Your task to perform on an android device: change notifications settings Image 0: 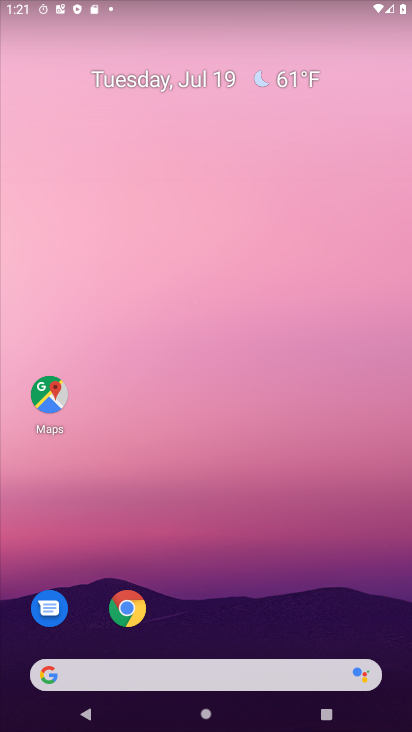
Step 0: drag from (321, 545) to (214, 2)
Your task to perform on an android device: change notifications settings Image 1: 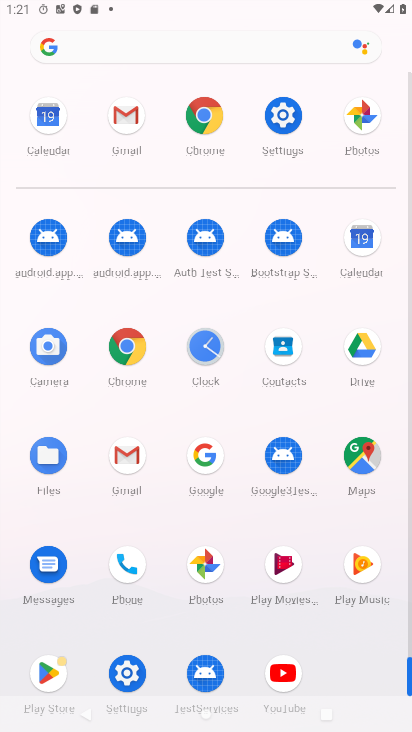
Step 1: click (280, 123)
Your task to perform on an android device: change notifications settings Image 2: 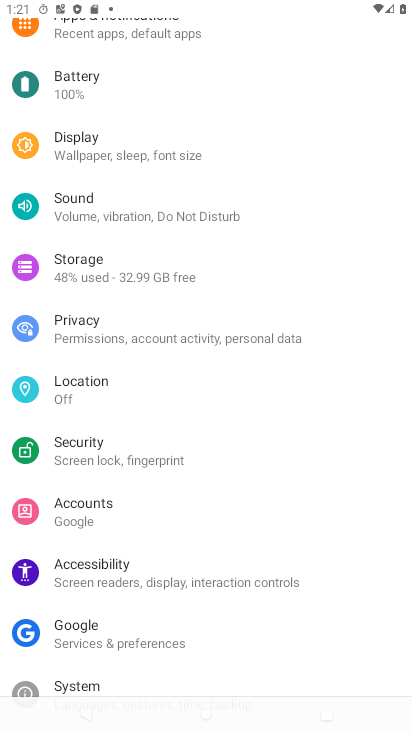
Step 2: drag from (219, 68) to (279, 504)
Your task to perform on an android device: change notifications settings Image 3: 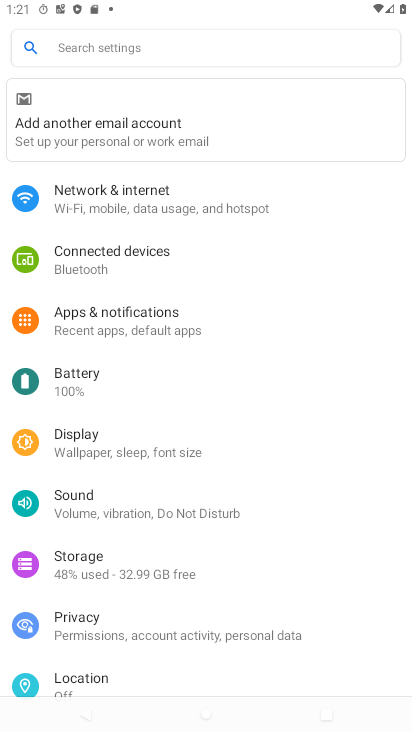
Step 3: click (175, 328)
Your task to perform on an android device: change notifications settings Image 4: 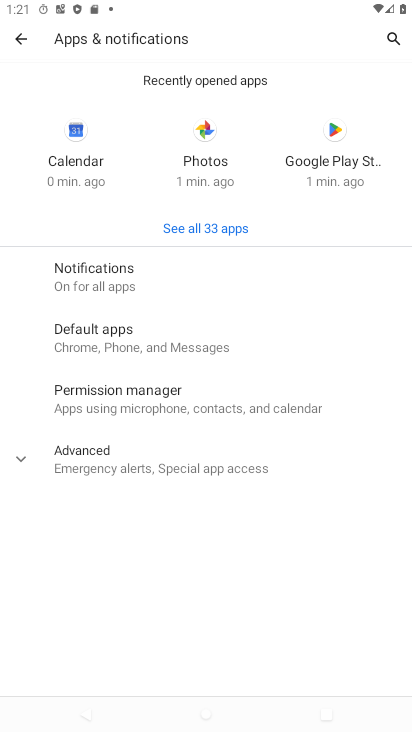
Step 4: click (81, 271)
Your task to perform on an android device: change notifications settings Image 5: 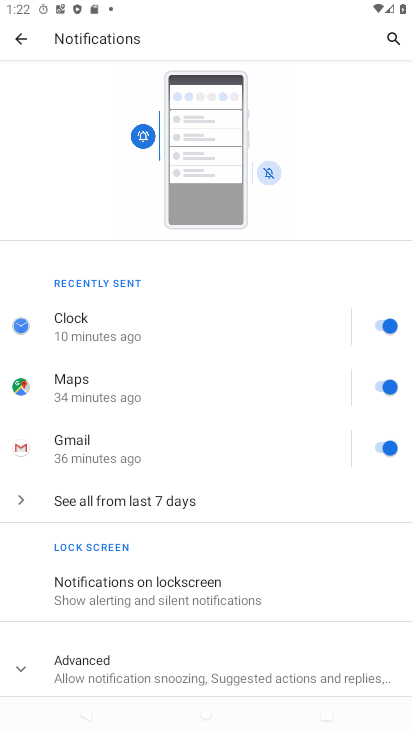
Step 5: drag from (187, 584) to (66, 202)
Your task to perform on an android device: change notifications settings Image 6: 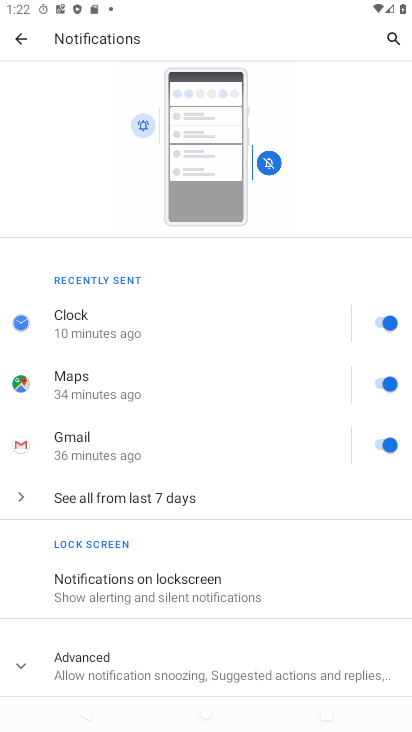
Step 6: click (385, 317)
Your task to perform on an android device: change notifications settings Image 7: 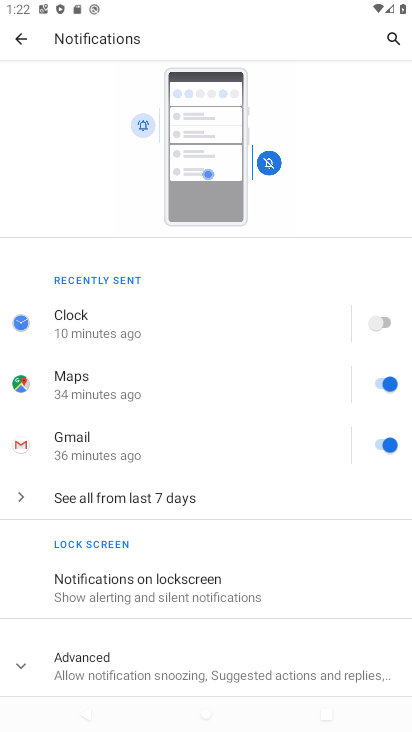
Step 7: task complete